Your task to perform on an android device: change timer sound Image 0: 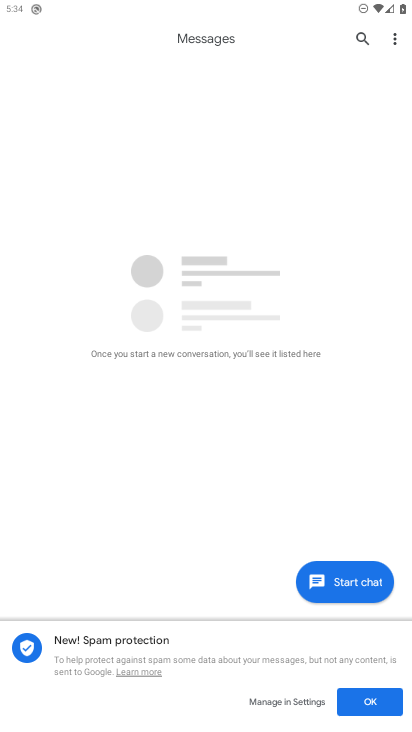
Step 0: press home button
Your task to perform on an android device: change timer sound Image 1: 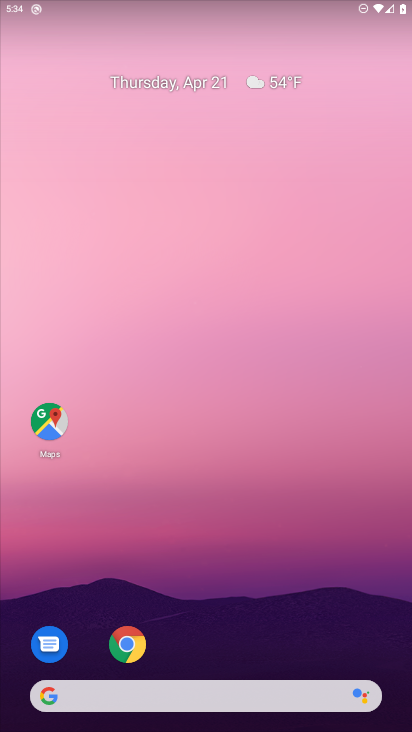
Step 1: drag from (224, 668) to (345, 196)
Your task to perform on an android device: change timer sound Image 2: 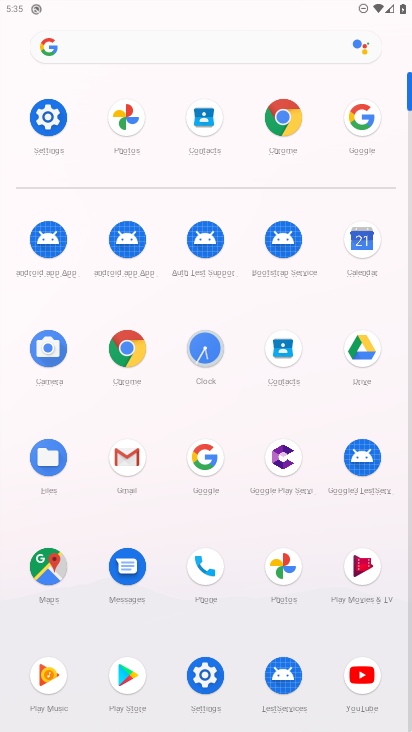
Step 2: click (197, 350)
Your task to perform on an android device: change timer sound Image 3: 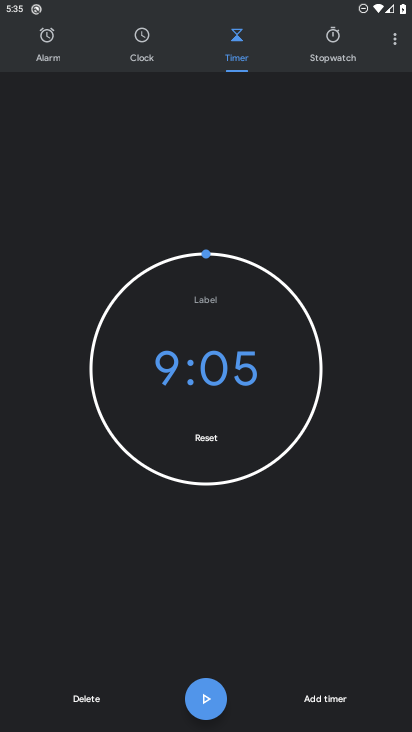
Step 3: click (390, 43)
Your task to perform on an android device: change timer sound Image 4: 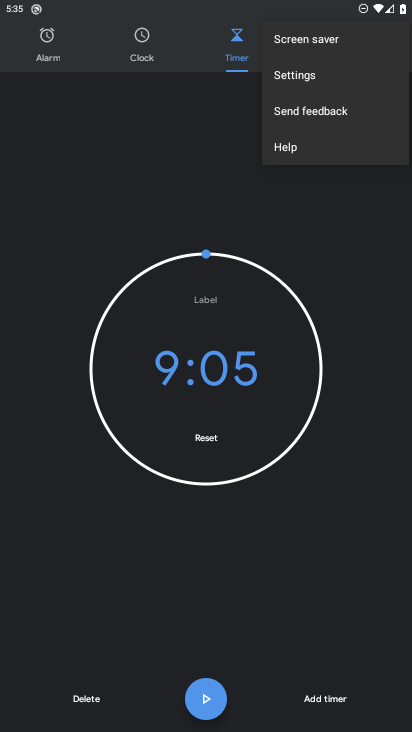
Step 4: click (311, 75)
Your task to perform on an android device: change timer sound Image 5: 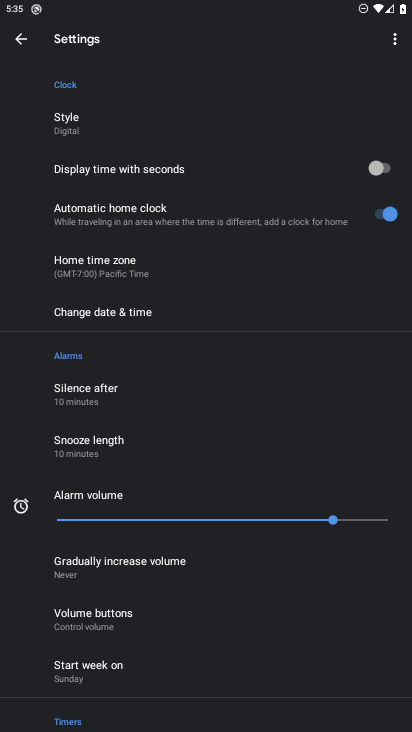
Step 5: drag from (181, 684) to (222, 356)
Your task to perform on an android device: change timer sound Image 6: 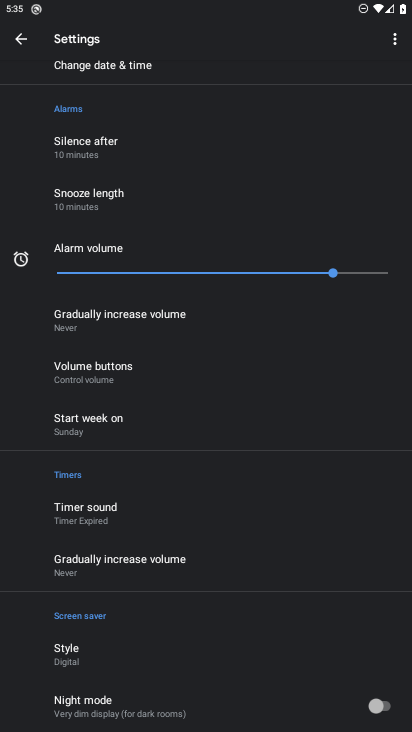
Step 6: click (84, 515)
Your task to perform on an android device: change timer sound Image 7: 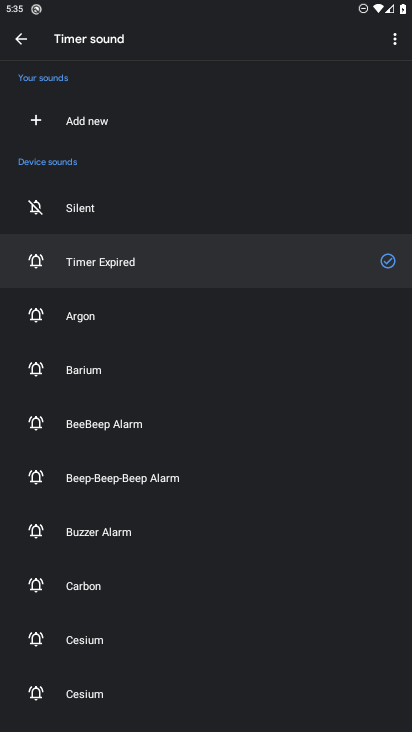
Step 7: click (85, 315)
Your task to perform on an android device: change timer sound Image 8: 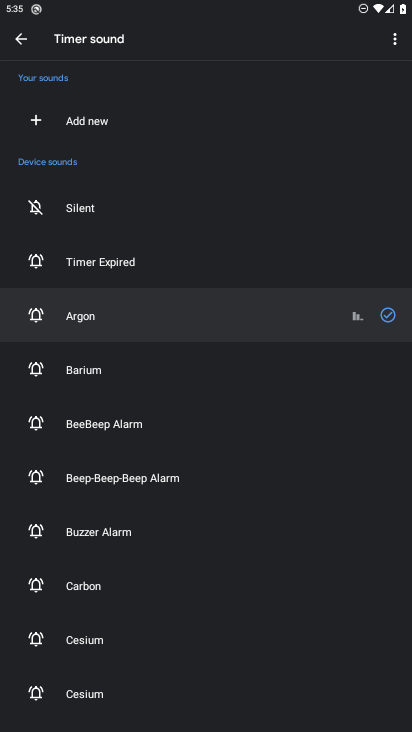
Step 8: task complete